Your task to perform on an android device: manage bookmarks in the chrome app Image 0: 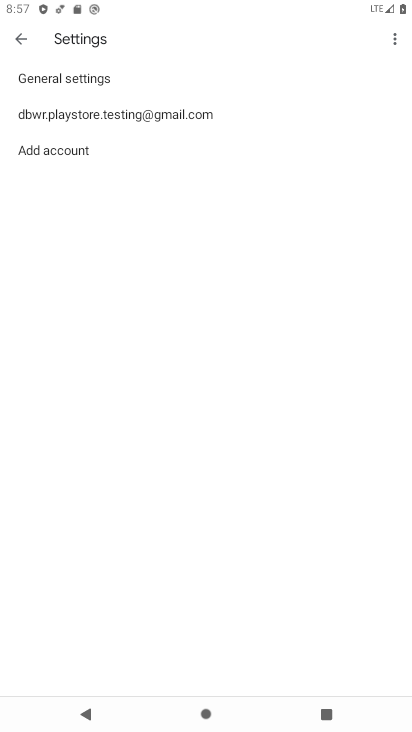
Step 0: press home button
Your task to perform on an android device: manage bookmarks in the chrome app Image 1: 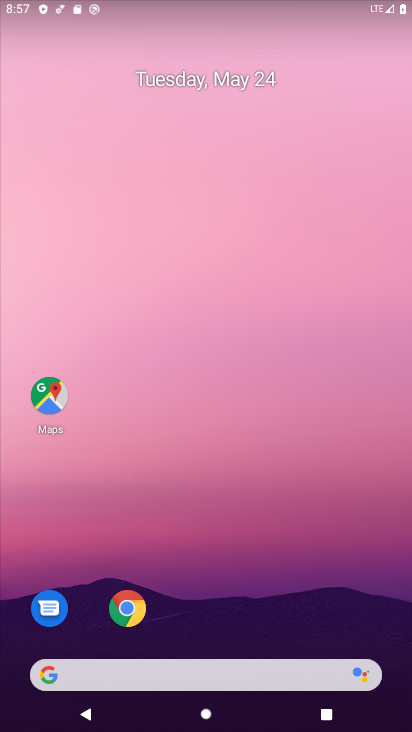
Step 1: click (127, 614)
Your task to perform on an android device: manage bookmarks in the chrome app Image 2: 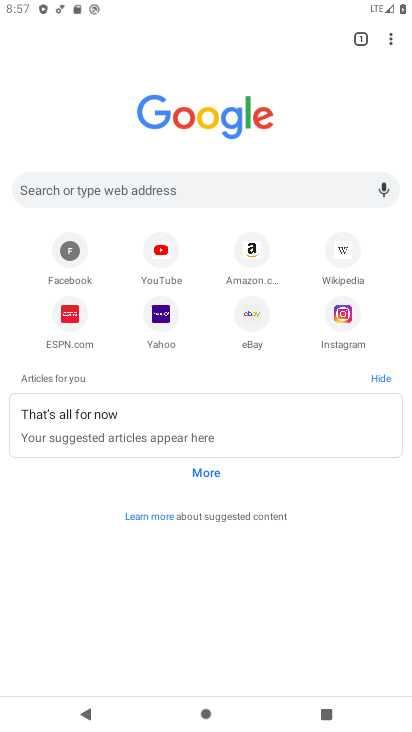
Step 2: click (394, 37)
Your task to perform on an android device: manage bookmarks in the chrome app Image 3: 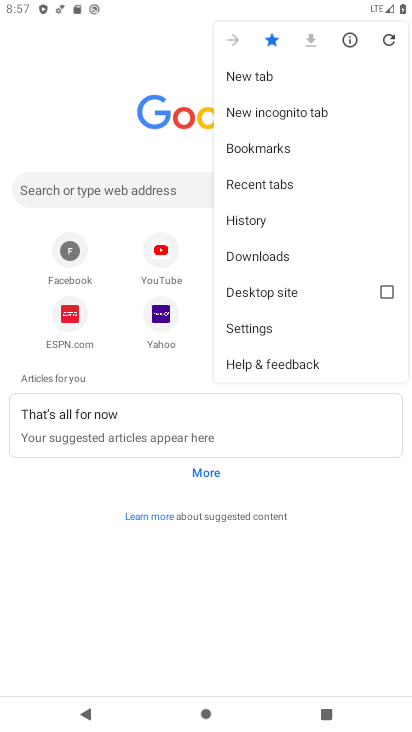
Step 3: click (264, 153)
Your task to perform on an android device: manage bookmarks in the chrome app Image 4: 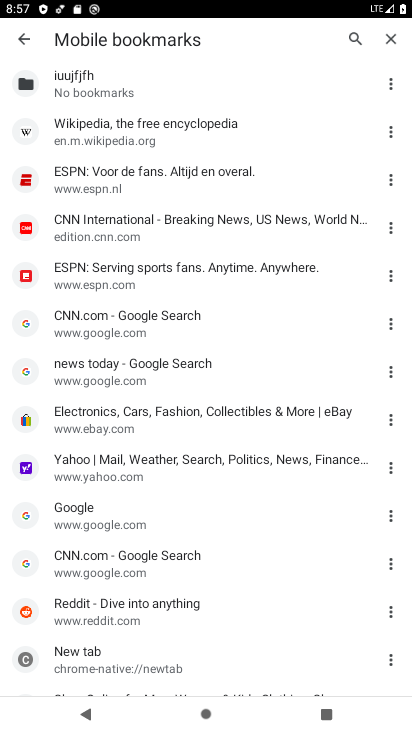
Step 4: click (178, 222)
Your task to perform on an android device: manage bookmarks in the chrome app Image 5: 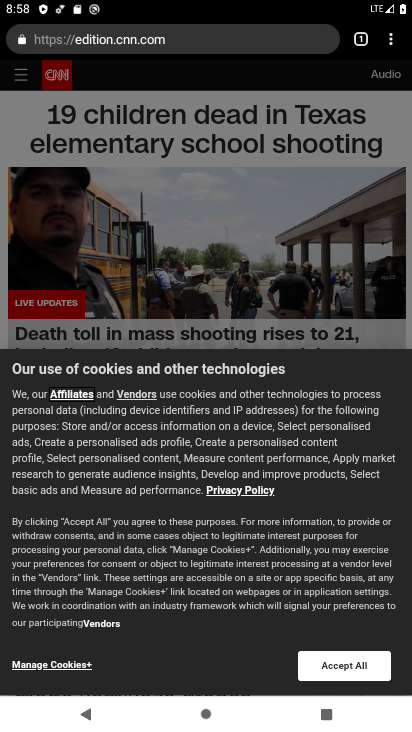
Step 5: task complete